Your task to perform on an android device: change the clock display to digital Image 0: 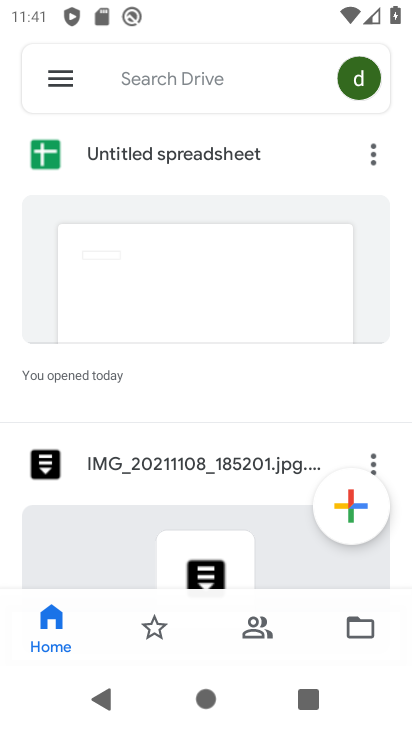
Step 0: press home button
Your task to perform on an android device: change the clock display to digital Image 1: 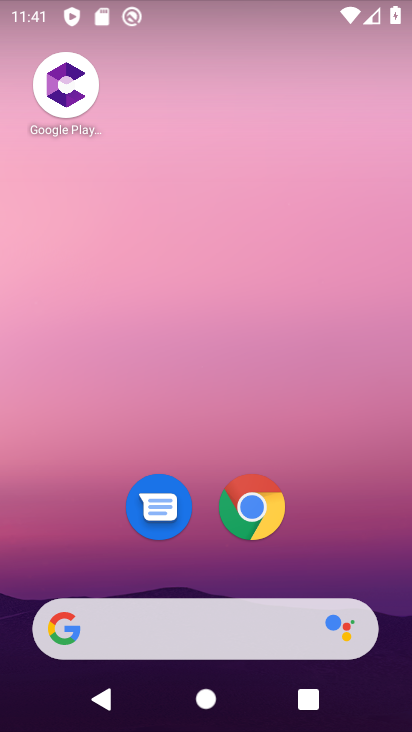
Step 1: drag from (342, 531) to (282, 31)
Your task to perform on an android device: change the clock display to digital Image 2: 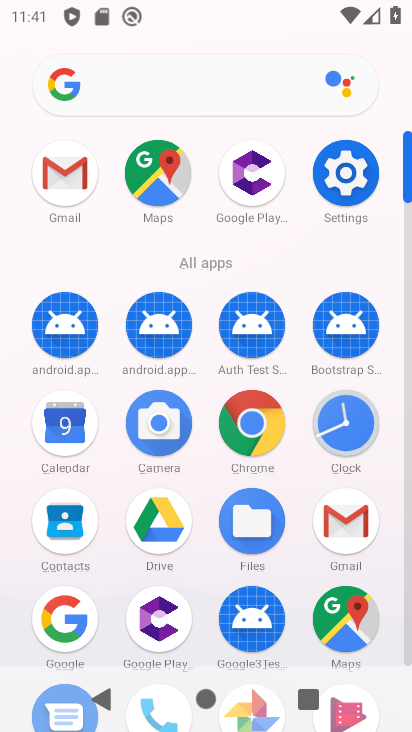
Step 2: click (338, 419)
Your task to perform on an android device: change the clock display to digital Image 3: 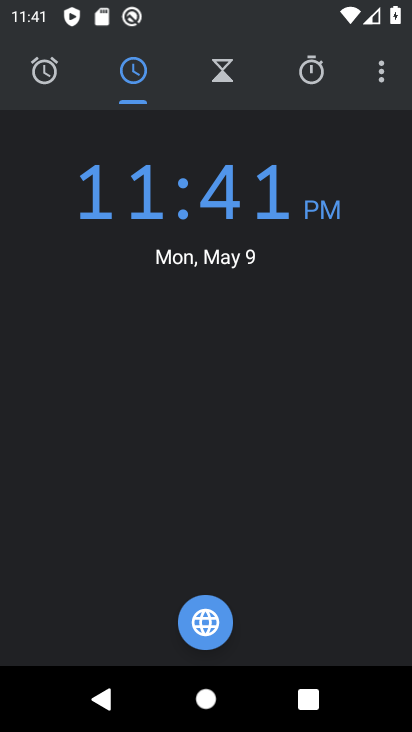
Step 3: click (384, 75)
Your task to perform on an android device: change the clock display to digital Image 4: 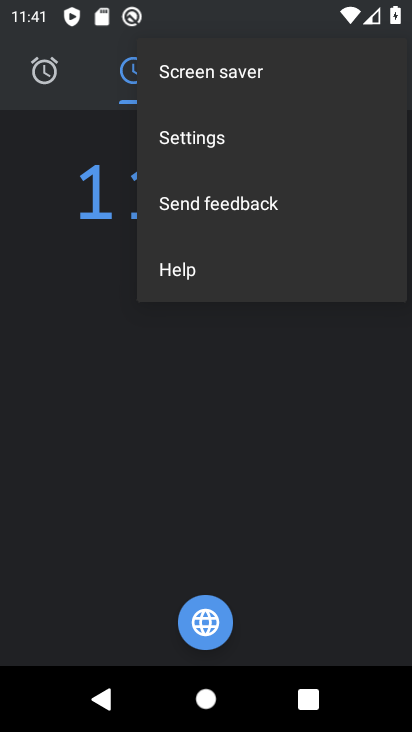
Step 4: click (234, 143)
Your task to perform on an android device: change the clock display to digital Image 5: 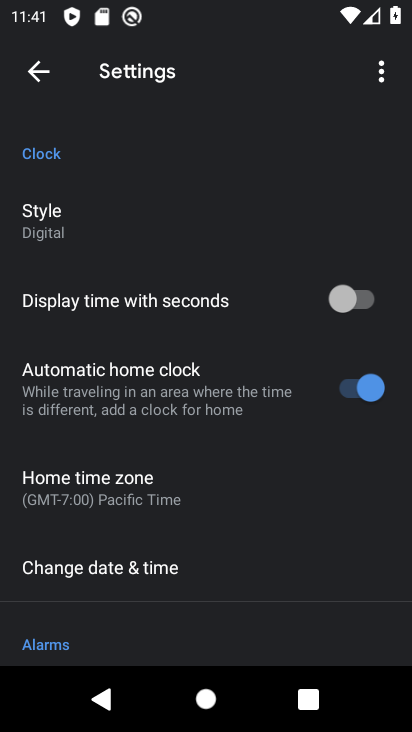
Step 5: task complete